Your task to perform on an android device: delete the emails in spam in the gmail app Image 0: 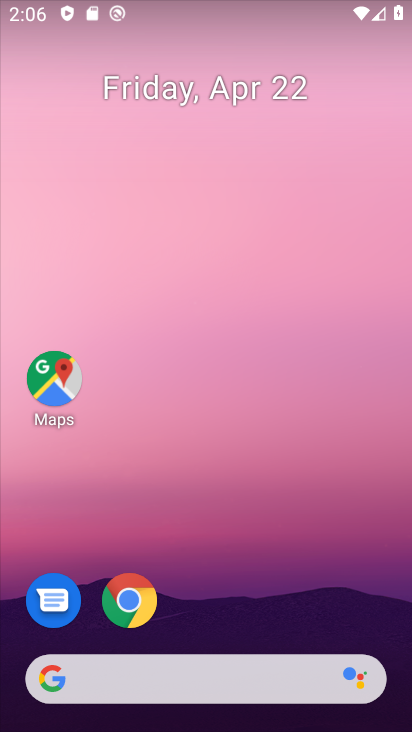
Step 0: drag from (216, 509) to (340, 10)
Your task to perform on an android device: delete the emails in spam in the gmail app Image 1: 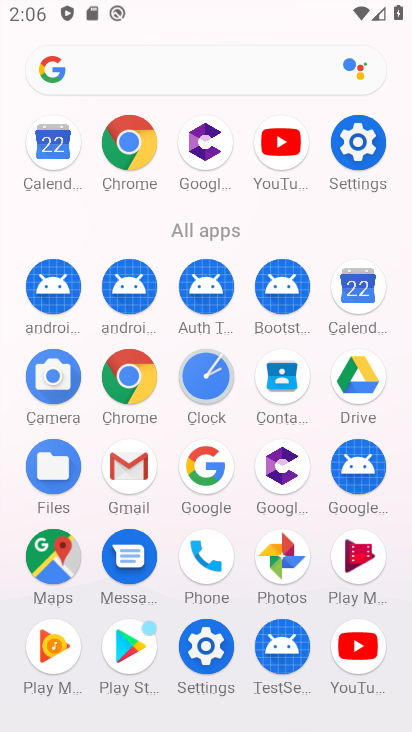
Step 1: click (109, 462)
Your task to perform on an android device: delete the emails in spam in the gmail app Image 2: 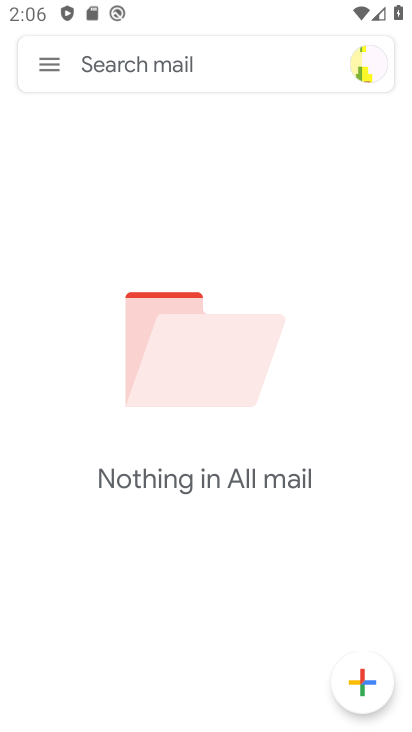
Step 2: click (52, 62)
Your task to perform on an android device: delete the emails in spam in the gmail app Image 3: 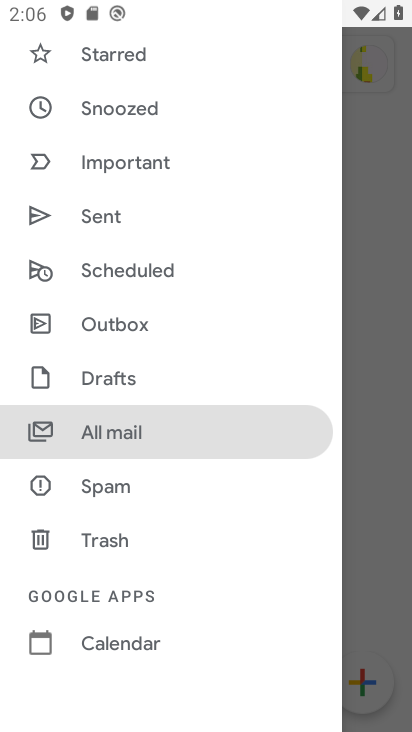
Step 3: click (161, 485)
Your task to perform on an android device: delete the emails in spam in the gmail app Image 4: 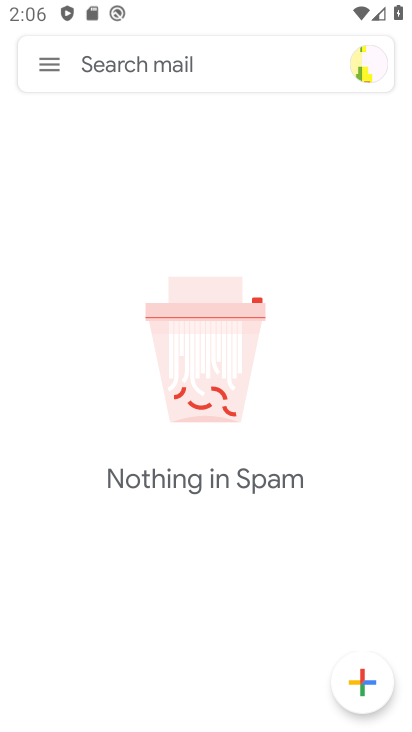
Step 4: task complete